Your task to perform on an android device: Clear the shopping cart on walmart. Image 0: 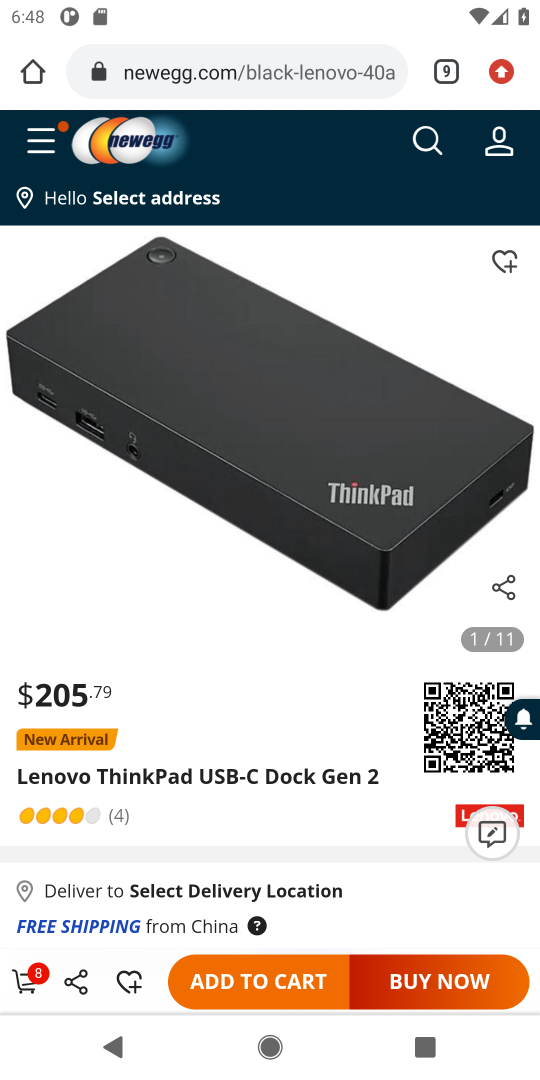
Step 0: press home button
Your task to perform on an android device: Clear the shopping cart on walmart. Image 1: 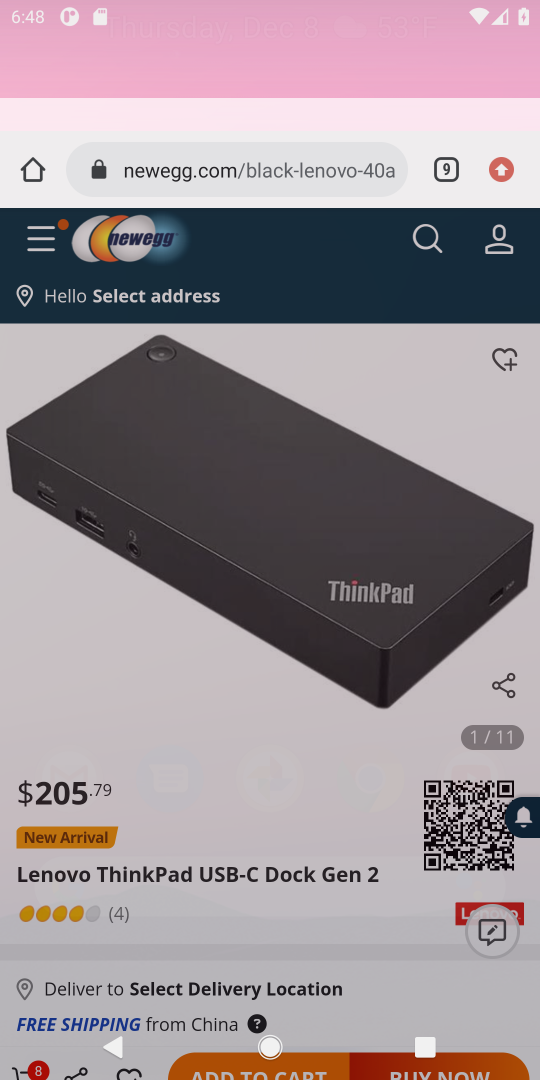
Step 1: press home button
Your task to perform on an android device: Clear the shopping cart on walmart. Image 2: 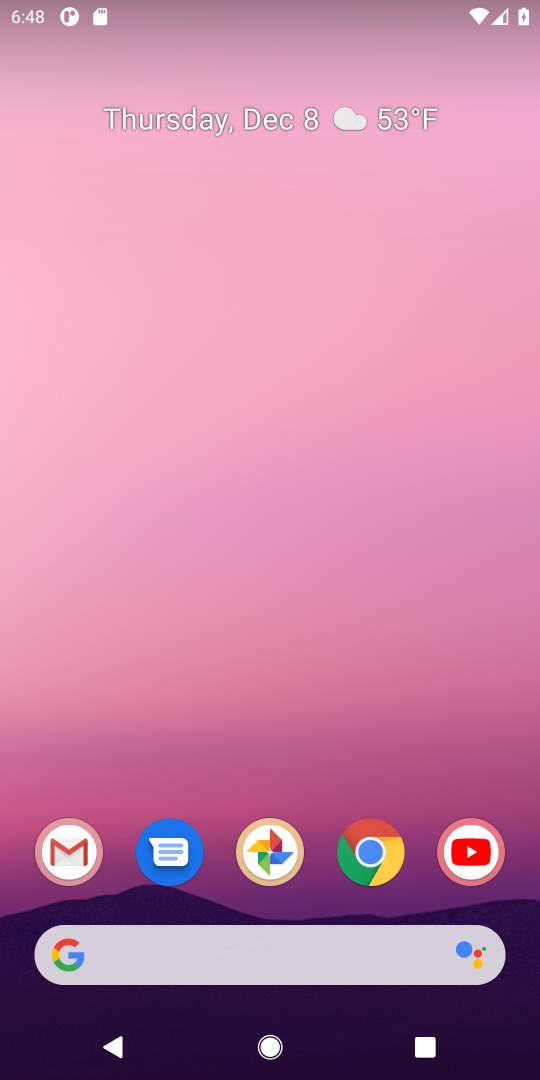
Step 2: click (211, 940)
Your task to perform on an android device: Clear the shopping cart on walmart. Image 3: 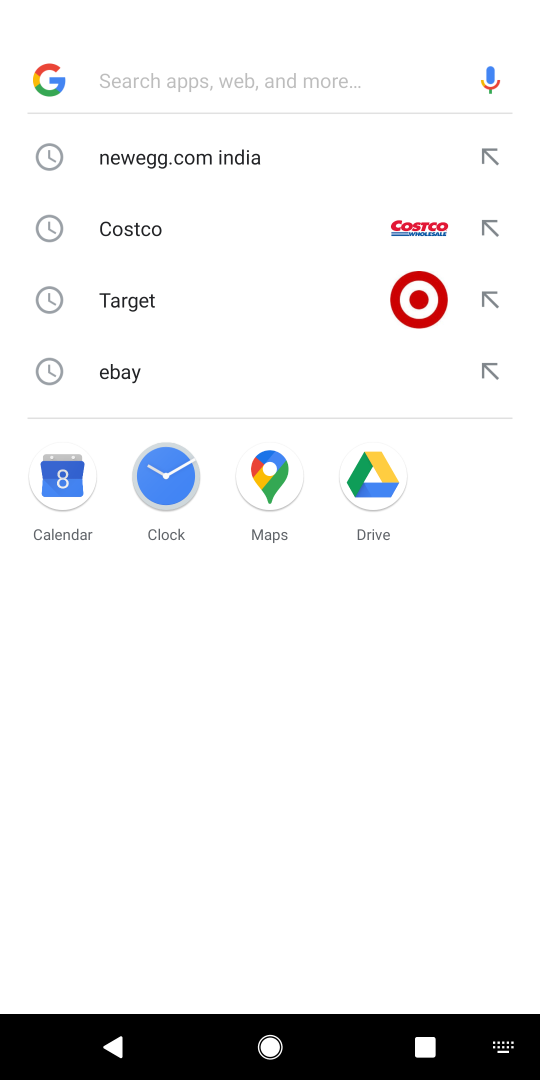
Step 3: type "walmart"
Your task to perform on an android device: Clear the shopping cart on walmart. Image 4: 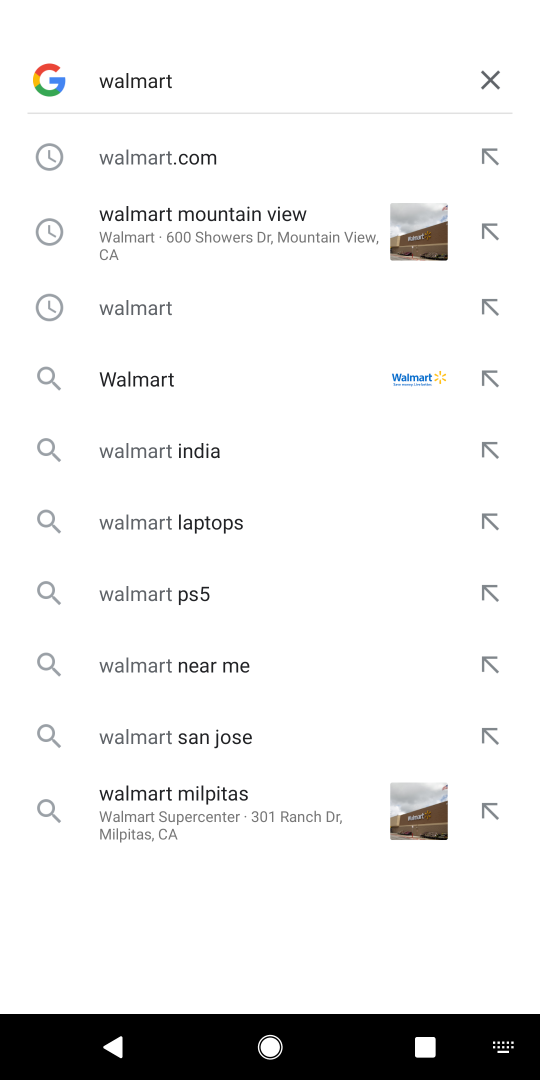
Step 4: click (123, 142)
Your task to perform on an android device: Clear the shopping cart on walmart. Image 5: 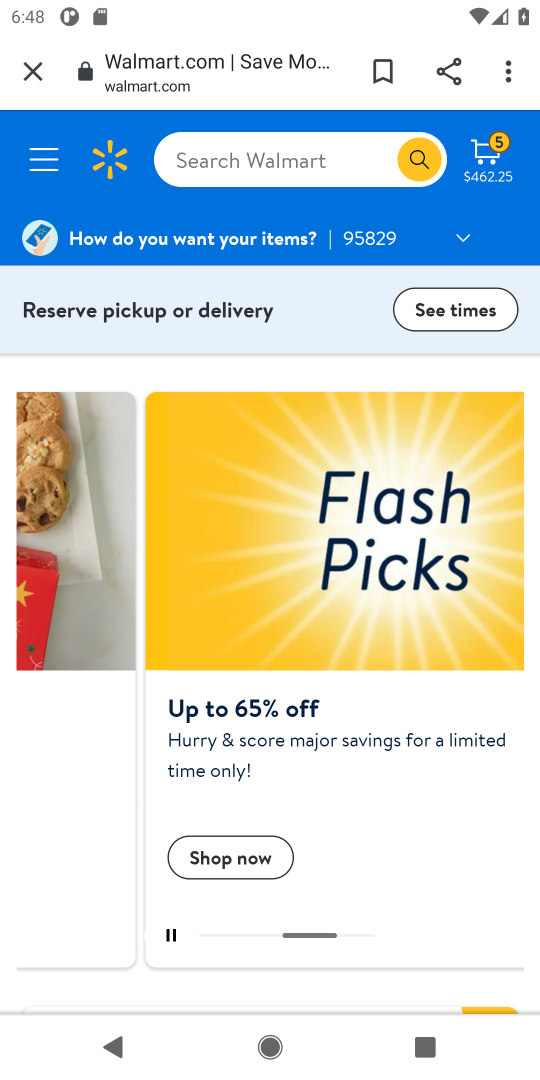
Step 5: click (123, 142)
Your task to perform on an android device: Clear the shopping cart on walmart. Image 6: 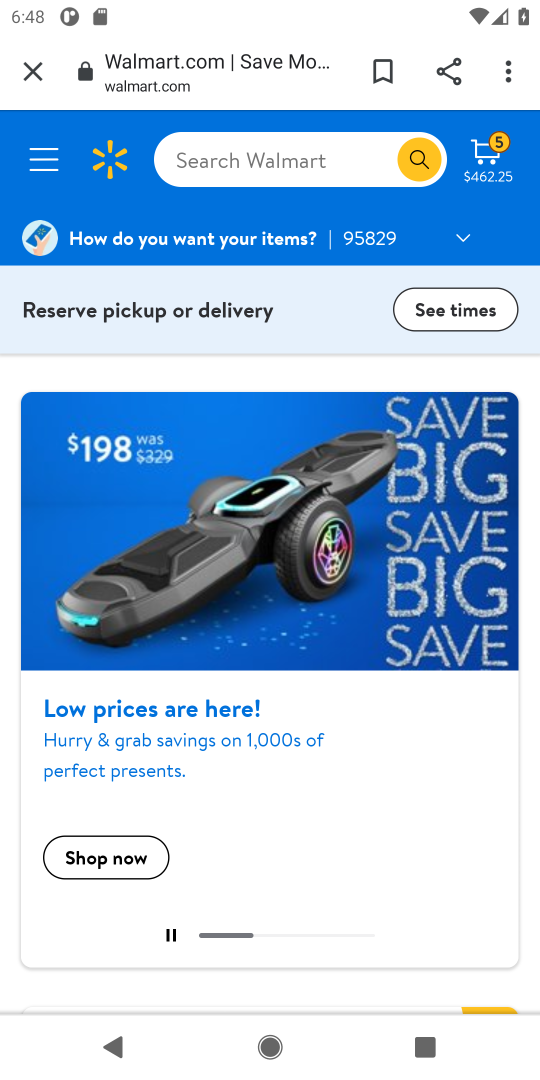
Step 6: click (475, 150)
Your task to perform on an android device: Clear the shopping cart on walmart. Image 7: 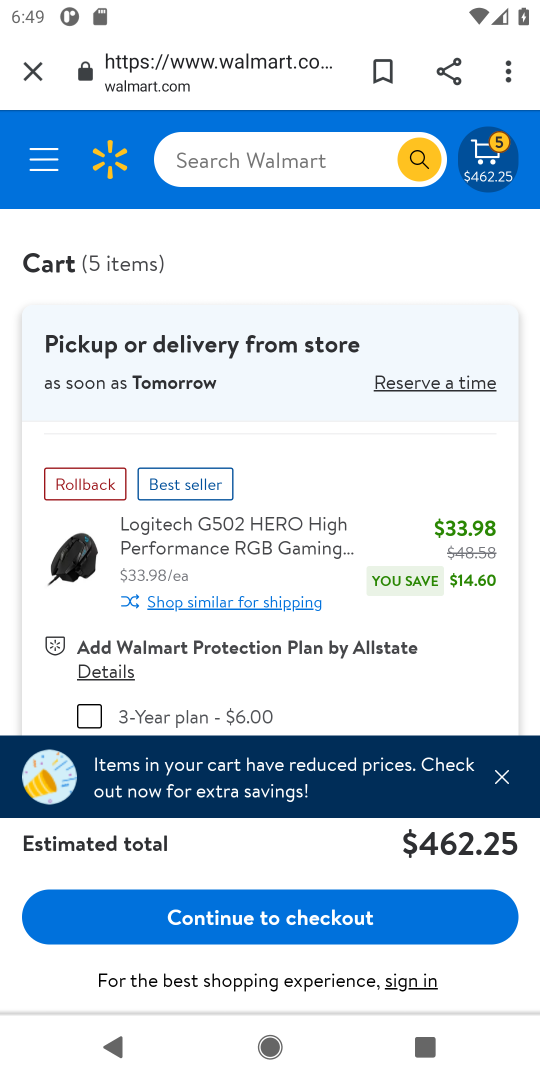
Step 7: click (495, 785)
Your task to perform on an android device: Clear the shopping cart on walmart. Image 8: 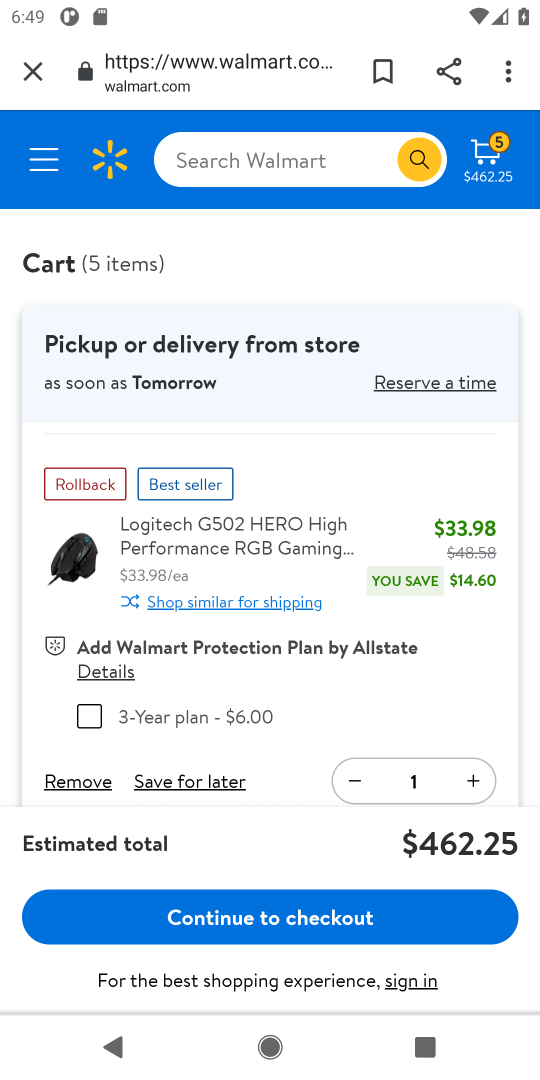
Step 8: click (62, 779)
Your task to perform on an android device: Clear the shopping cart on walmart. Image 9: 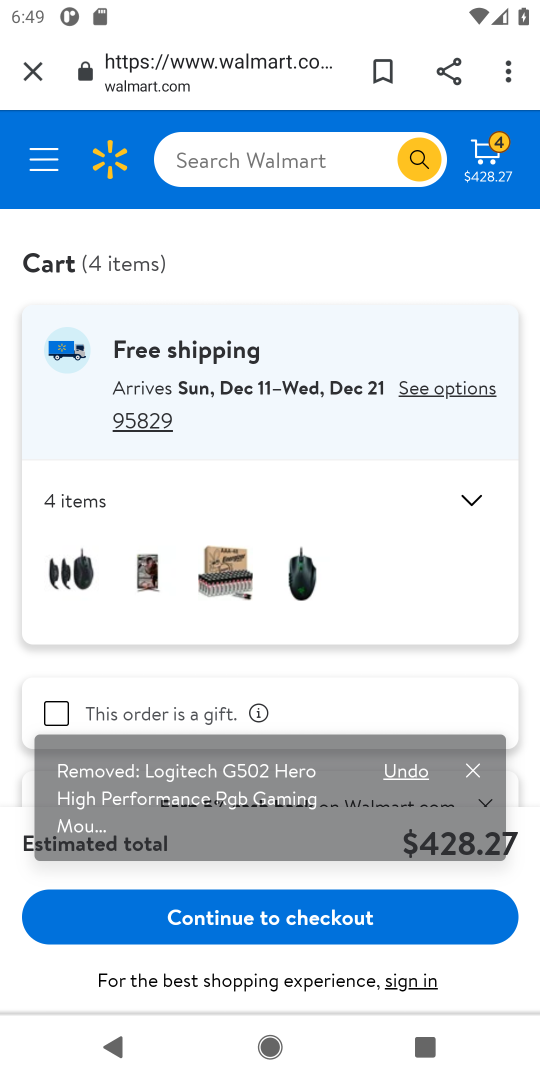
Step 9: click (62, 779)
Your task to perform on an android device: Clear the shopping cart on walmart. Image 10: 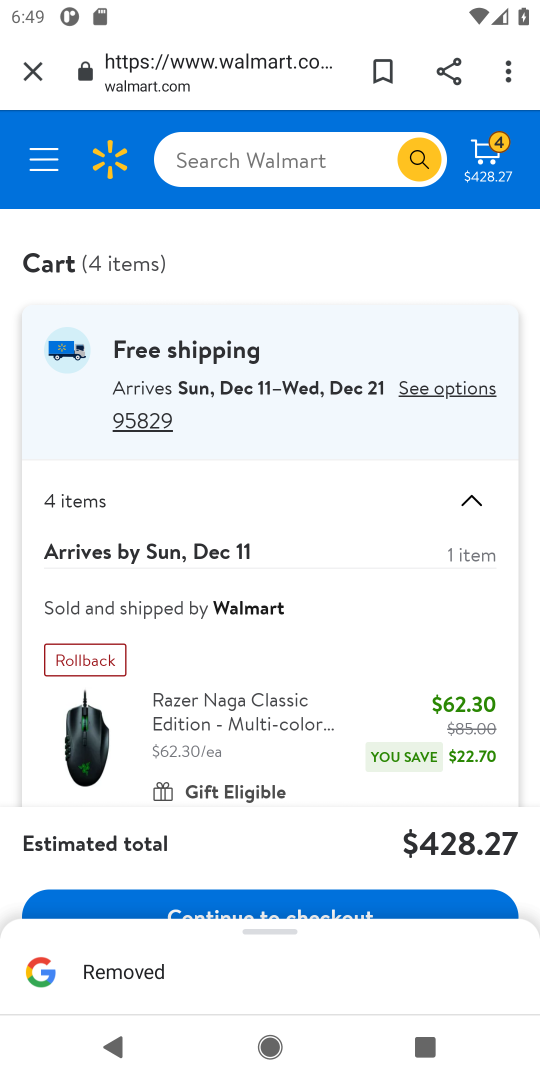
Step 10: task complete